Your task to perform on an android device: see tabs open on other devices in the chrome app Image 0: 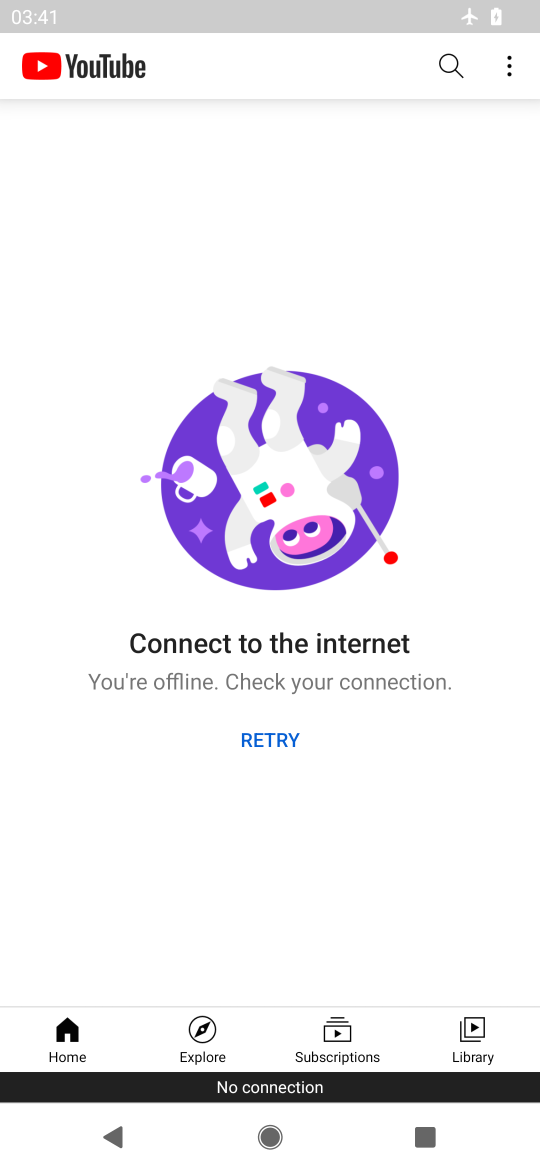
Step 0: press back button
Your task to perform on an android device: see tabs open on other devices in the chrome app Image 1: 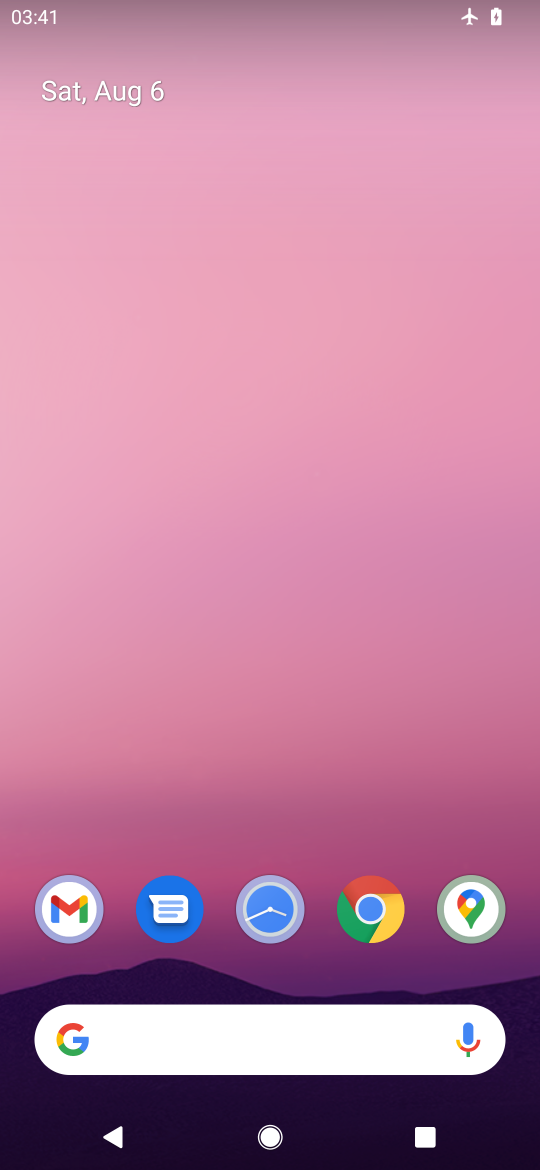
Step 1: click (390, 894)
Your task to perform on an android device: see tabs open on other devices in the chrome app Image 2: 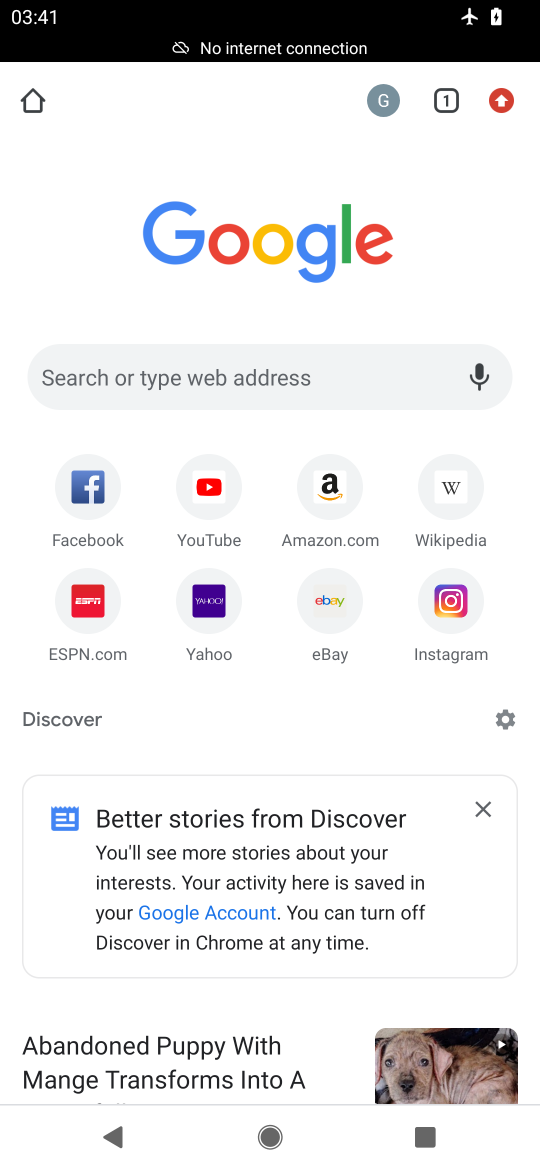
Step 2: task complete